Your task to perform on an android device: turn off smart reply in the gmail app Image 0: 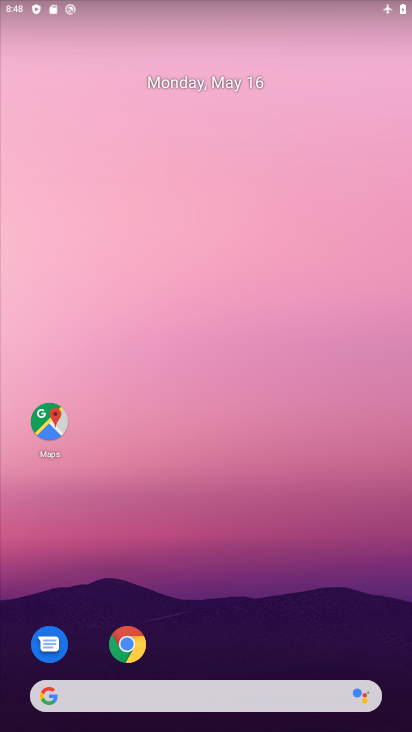
Step 0: drag from (207, 717) to (202, 120)
Your task to perform on an android device: turn off smart reply in the gmail app Image 1: 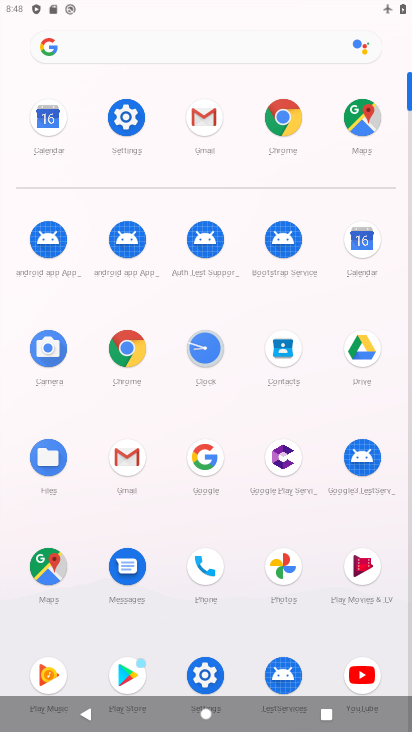
Step 1: click (215, 117)
Your task to perform on an android device: turn off smart reply in the gmail app Image 2: 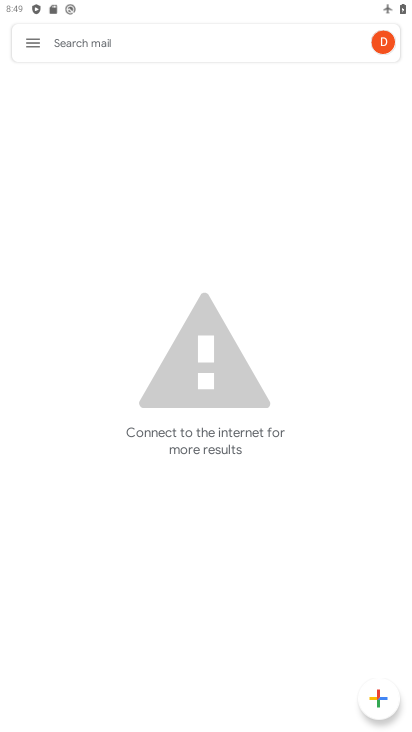
Step 2: click (37, 39)
Your task to perform on an android device: turn off smart reply in the gmail app Image 3: 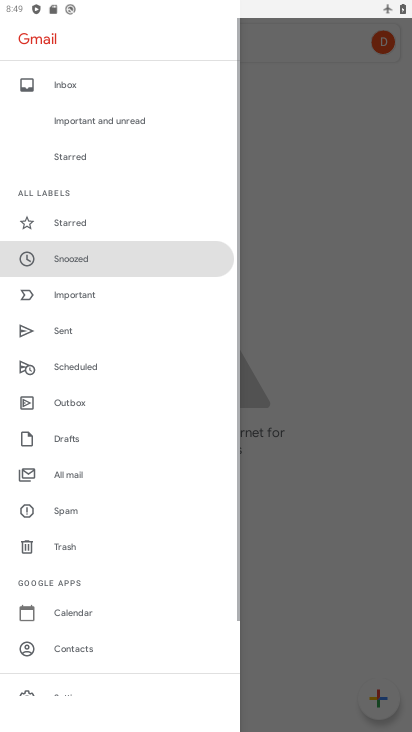
Step 3: drag from (71, 650) to (132, 287)
Your task to perform on an android device: turn off smart reply in the gmail app Image 4: 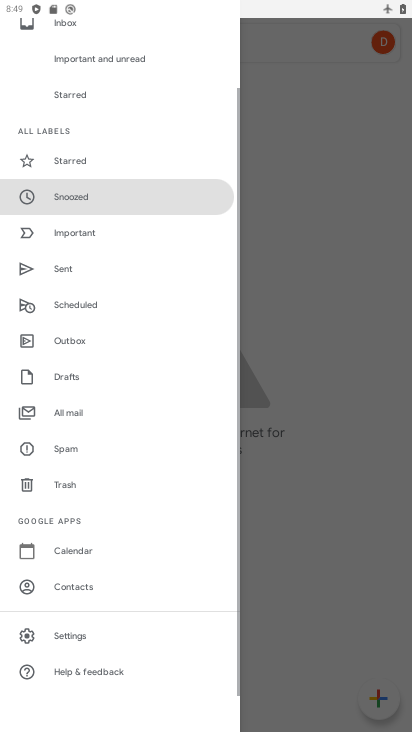
Step 4: click (62, 640)
Your task to perform on an android device: turn off smart reply in the gmail app Image 5: 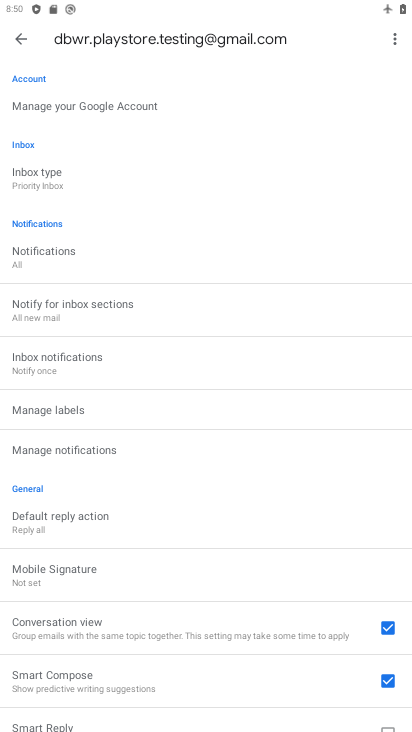
Step 5: task complete